Your task to perform on an android device: set an alarm Image 0: 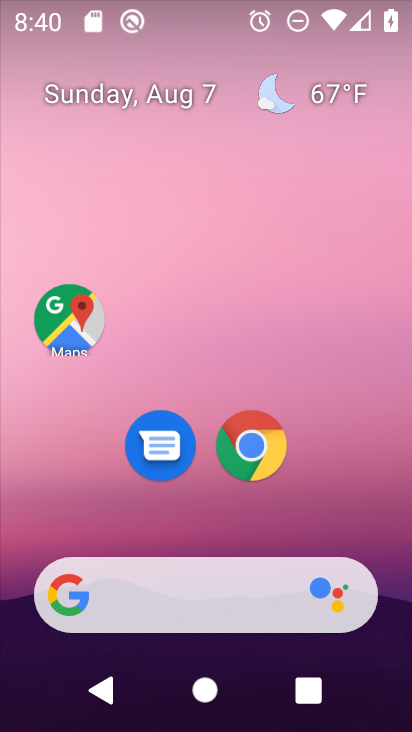
Step 0: press home button
Your task to perform on an android device: set an alarm Image 1: 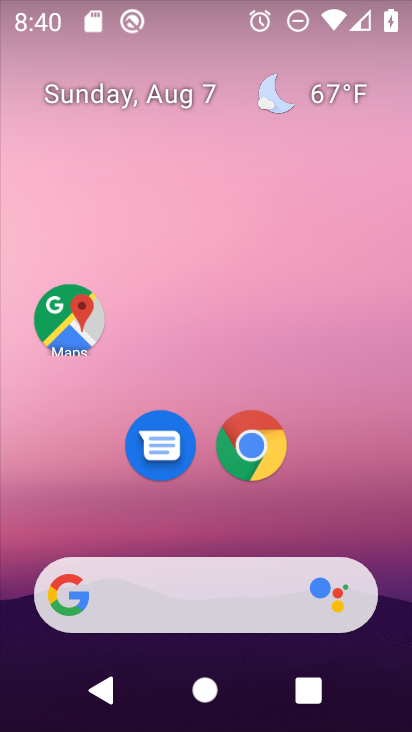
Step 1: drag from (309, 529) to (334, 6)
Your task to perform on an android device: set an alarm Image 2: 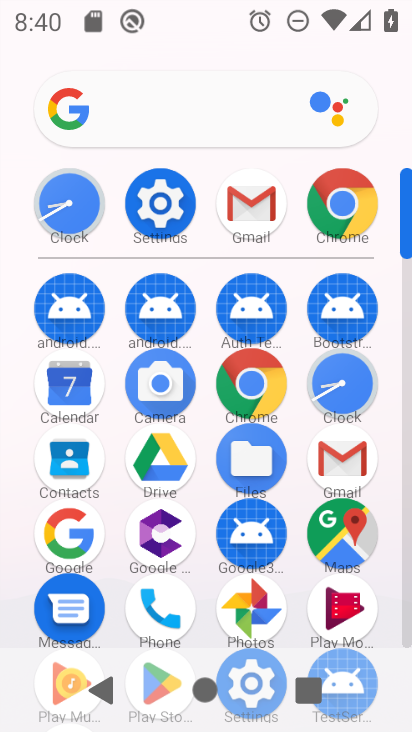
Step 2: click (338, 376)
Your task to perform on an android device: set an alarm Image 3: 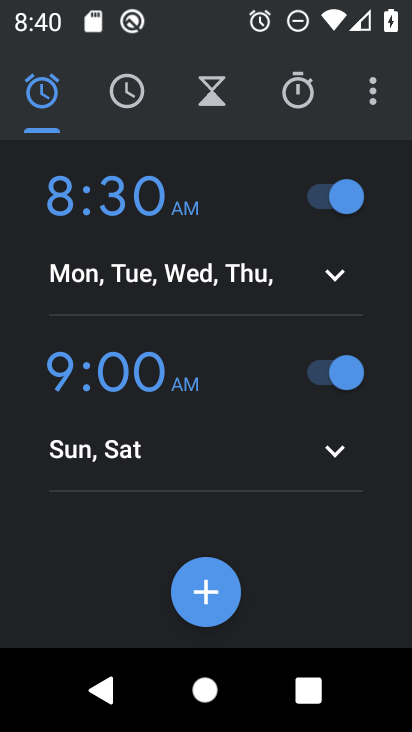
Step 3: click (207, 592)
Your task to perform on an android device: set an alarm Image 4: 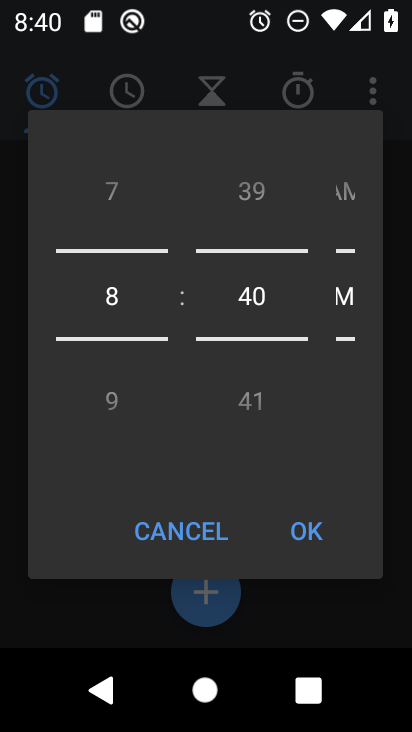
Step 4: click (309, 529)
Your task to perform on an android device: set an alarm Image 5: 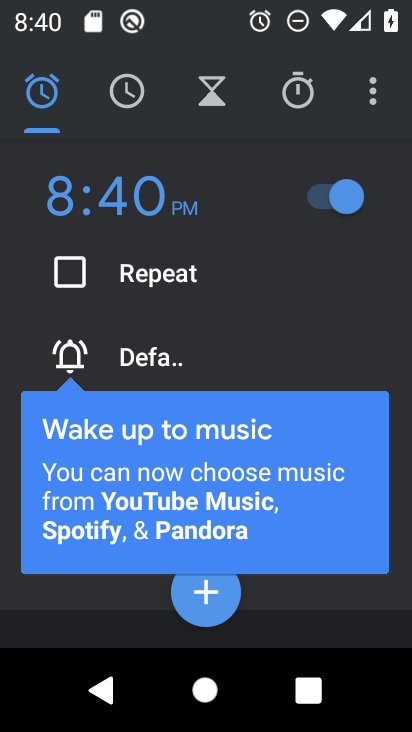
Step 5: task complete